Your task to perform on an android device: Go to Google maps Image 0: 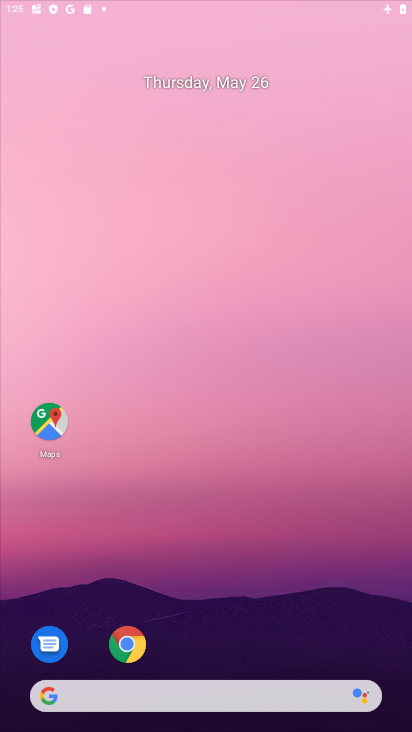
Step 0: click (279, 272)
Your task to perform on an android device: Go to Google maps Image 1: 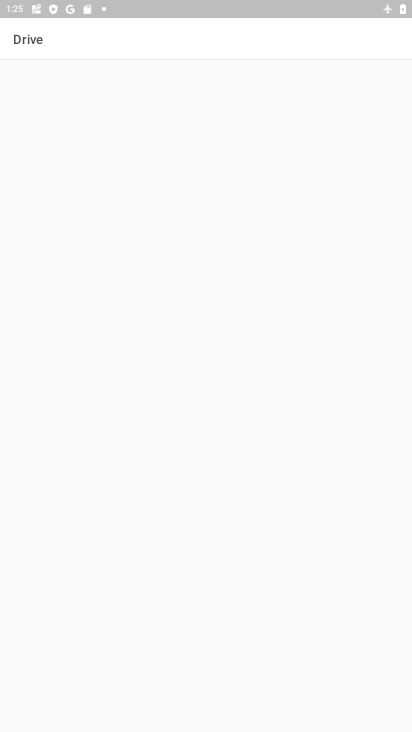
Step 1: drag from (245, 536) to (271, 279)
Your task to perform on an android device: Go to Google maps Image 2: 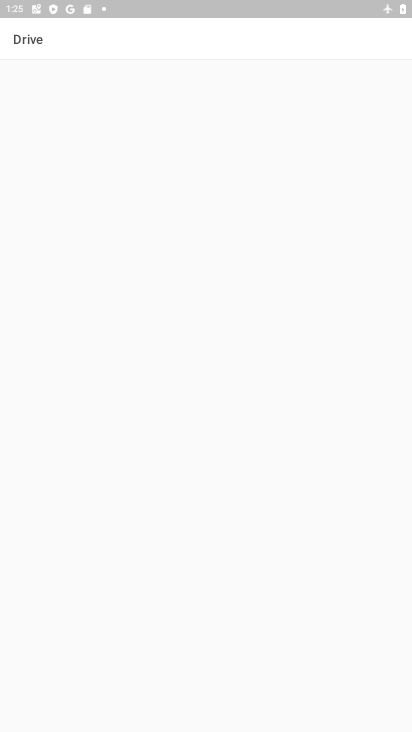
Step 2: drag from (247, 528) to (278, 322)
Your task to perform on an android device: Go to Google maps Image 3: 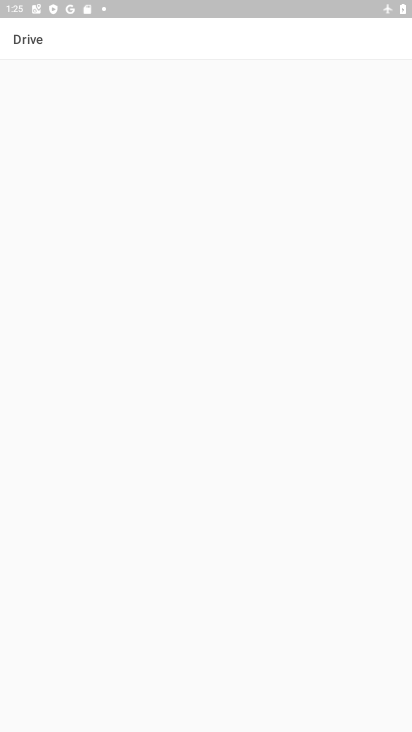
Step 3: press home button
Your task to perform on an android device: Go to Google maps Image 4: 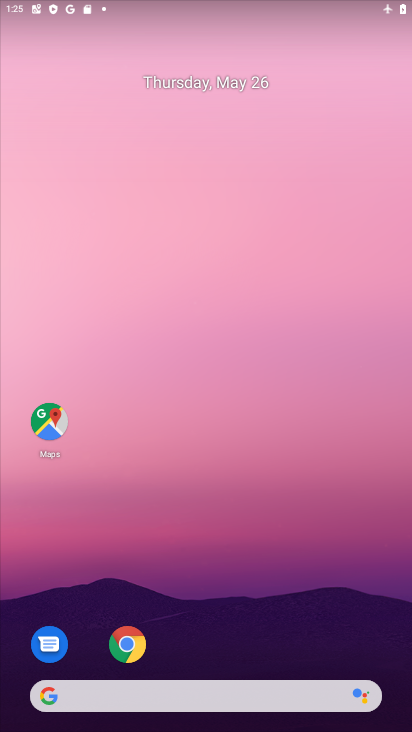
Step 4: click (43, 413)
Your task to perform on an android device: Go to Google maps Image 5: 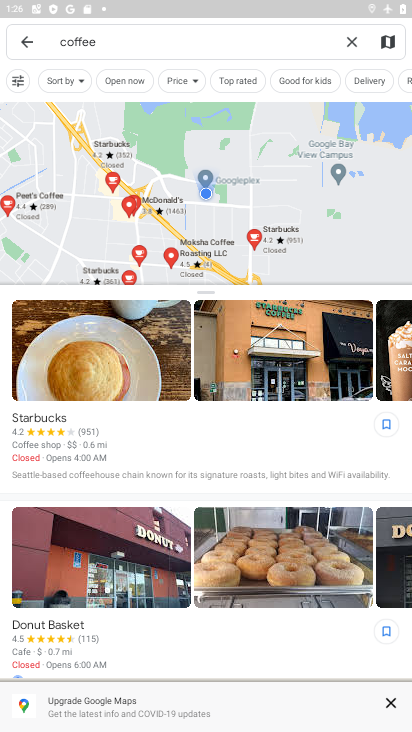
Step 5: task complete